Your task to perform on an android device: Open a new Chrome private tab Image 0: 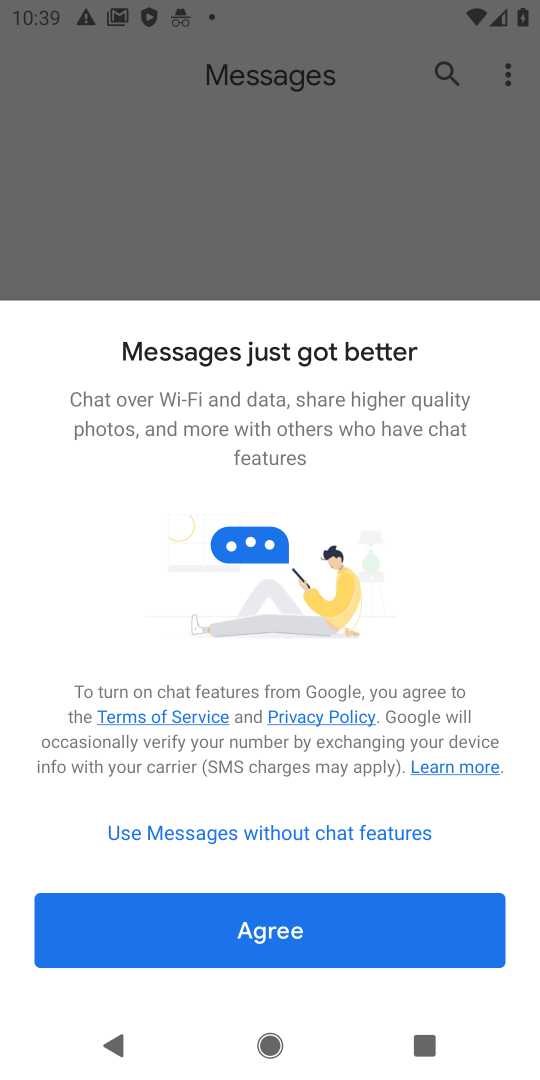
Step 0: press home button
Your task to perform on an android device: Open a new Chrome private tab Image 1: 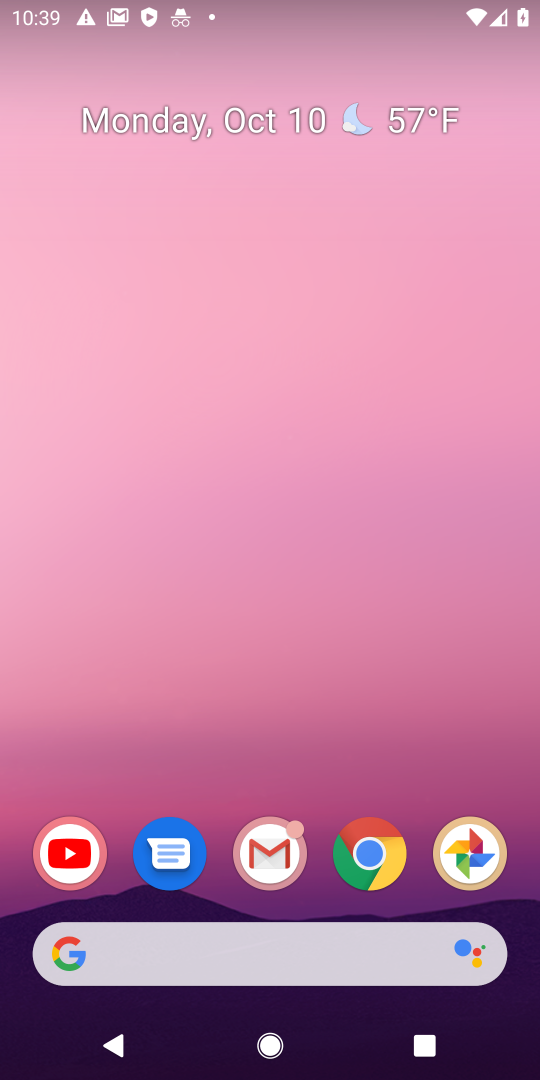
Step 1: drag from (480, 737) to (473, 143)
Your task to perform on an android device: Open a new Chrome private tab Image 2: 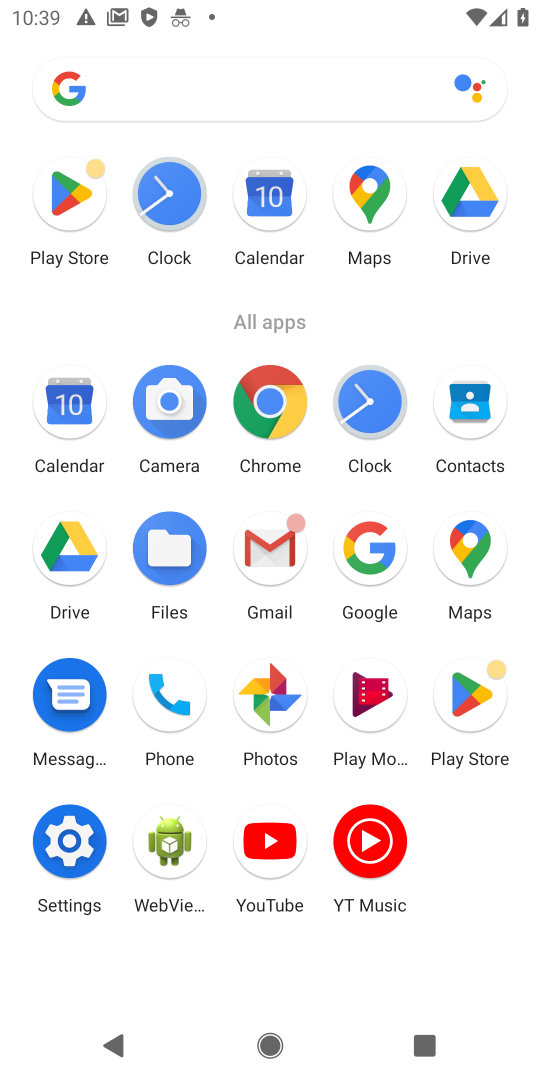
Step 2: click (281, 406)
Your task to perform on an android device: Open a new Chrome private tab Image 3: 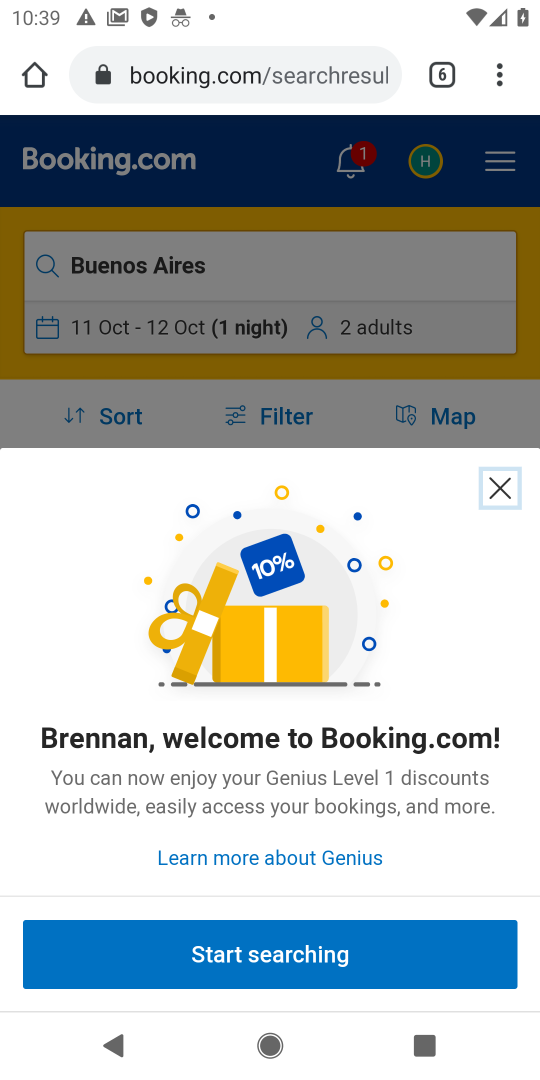
Step 3: click (498, 76)
Your task to perform on an android device: Open a new Chrome private tab Image 4: 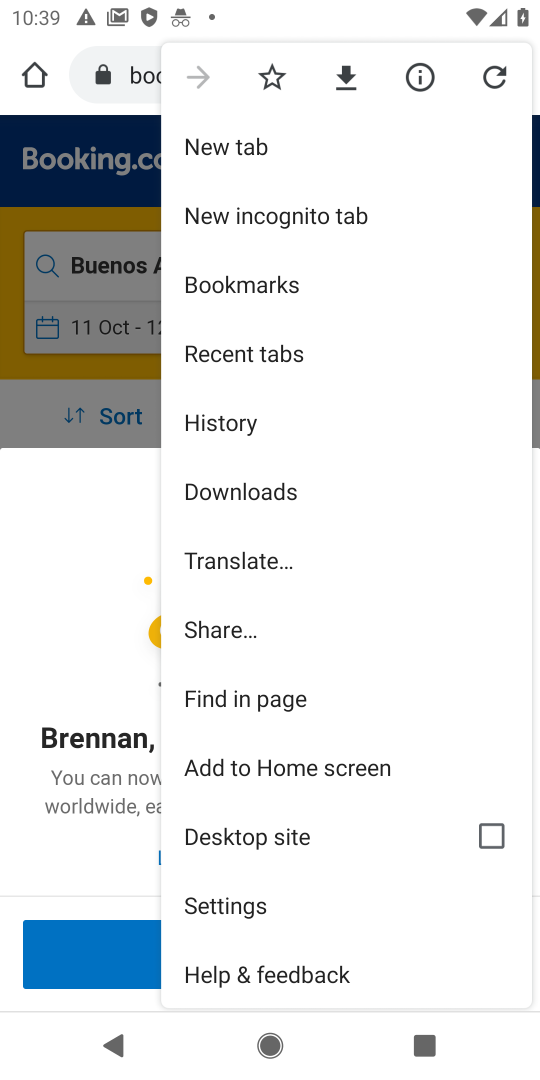
Step 4: click (230, 144)
Your task to perform on an android device: Open a new Chrome private tab Image 5: 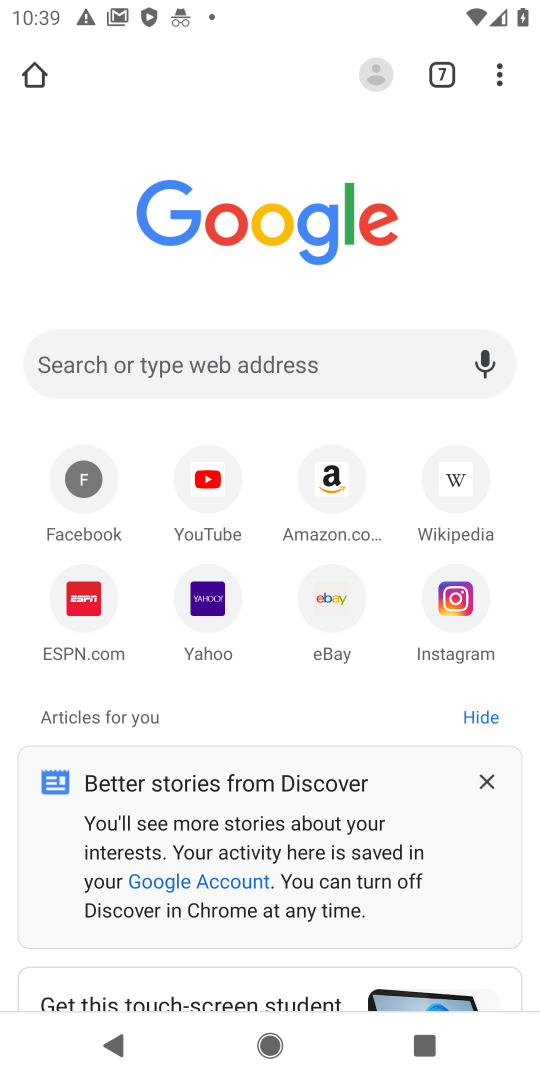
Step 5: task complete